Your task to perform on an android device: Open maps Image 0: 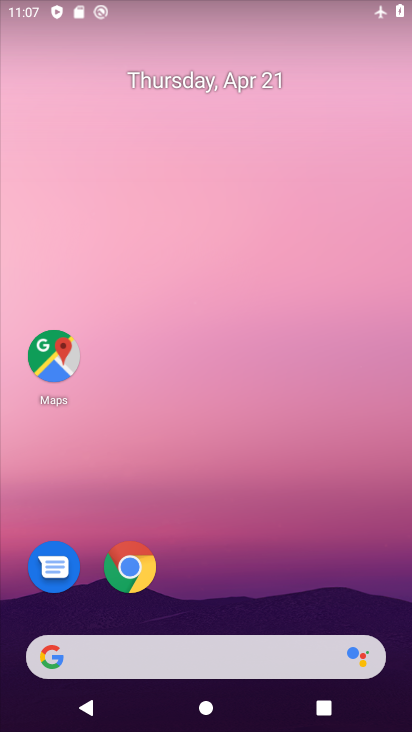
Step 0: drag from (202, 602) to (296, 180)
Your task to perform on an android device: Open maps Image 1: 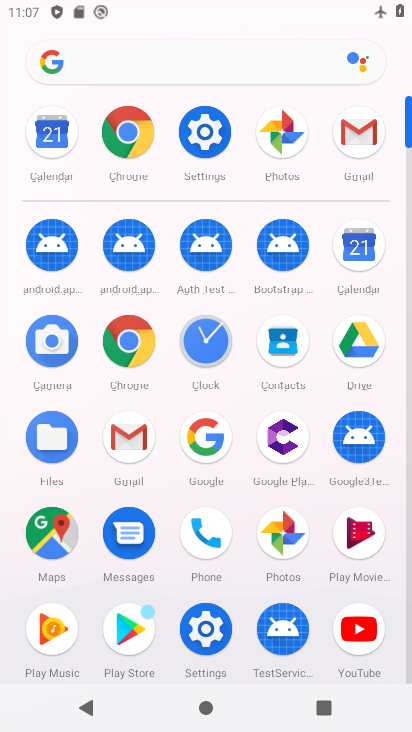
Step 1: click (57, 535)
Your task to perform on an android device: Open maps Image 2: 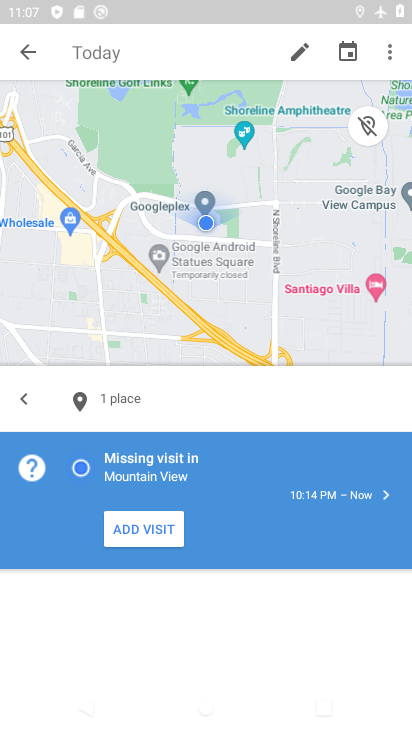
Step 2: click (32, 53)
Your task to perform on an android device: Open maps Image 3: 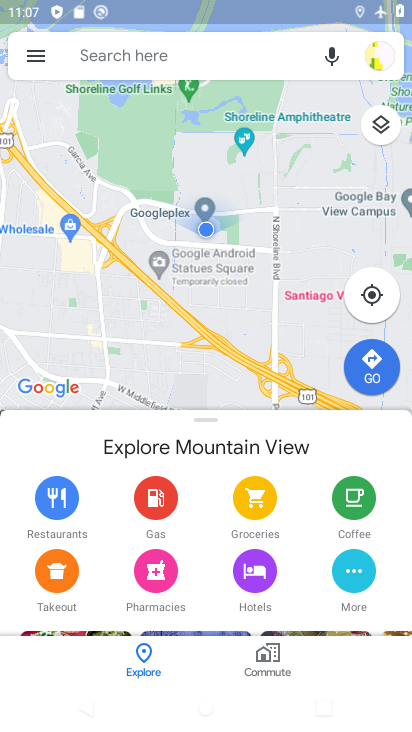
Step 3: task complete